Your task to perform on an android device: Check the news Image 0: 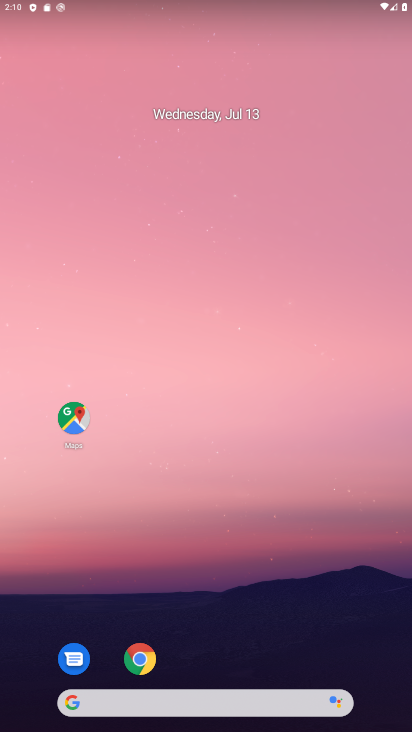
Step 0: press home button
Your task to perform on an android device: Check the news Image 1: 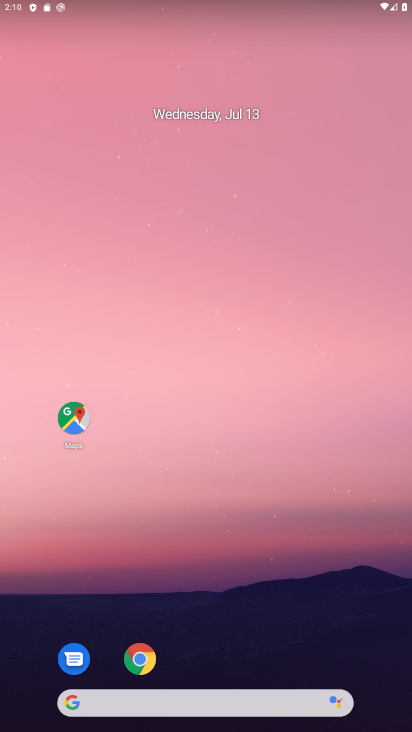
Step 1: task complete